Your task to perform on an android device: What's on my calendar tomorrow? Image 0: 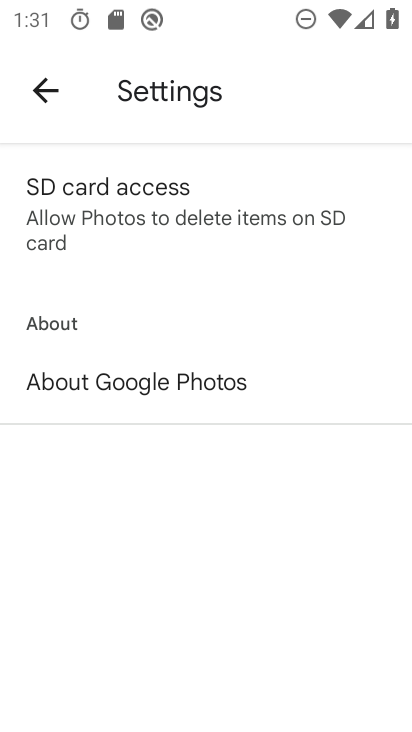
Step 0: press home button
Your task to perform on an android device: What's on my calendar tomorrow? Image 1: 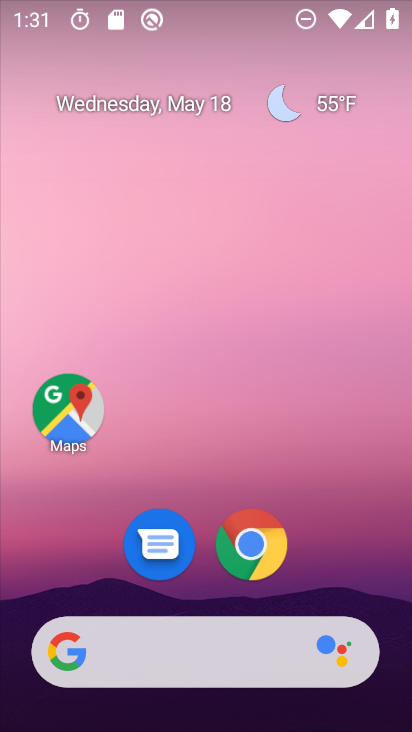
Step 1: click (194, 107)
Your task to perform on an android device: What's on my calendar tomorrow? Image 2: 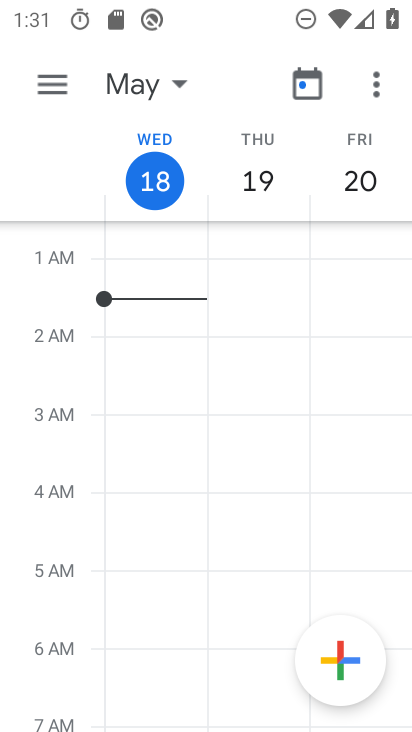
Step 2: click (63, 86)
Your task to perform on an android device: What's on my calendar tomorrow? Image 3: 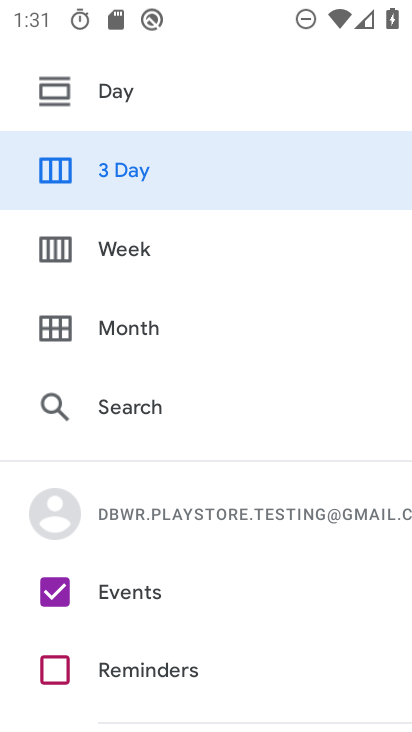
Step 3: drag from (208, 586) to (234, 256)
Your task to perform on an android device: What's on my calendar tomorrow? Image 4: 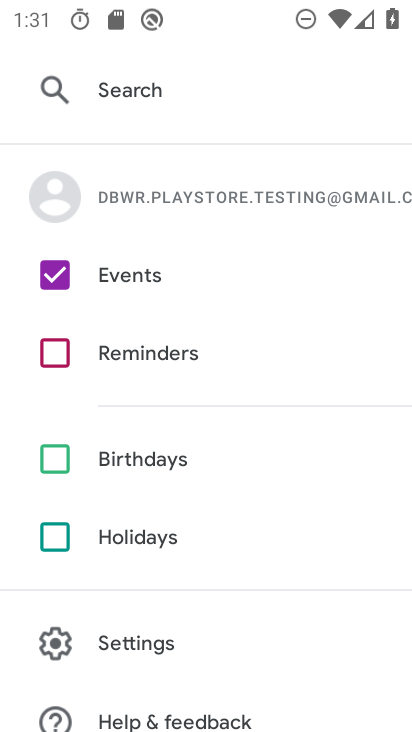
Step 4: click (59, 352)
Your task to perform on an android device: What's on my calendar tomorrow? Image 5: 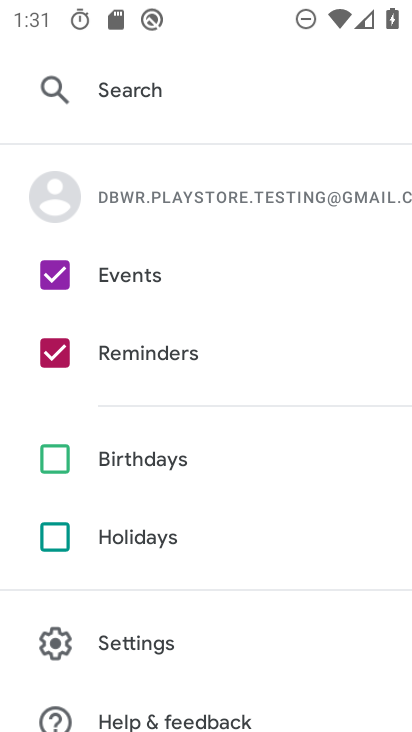
Step 5: click (58, 460)
Your task to perform on an android device: What's on my calendar tomorrow? Image 6: 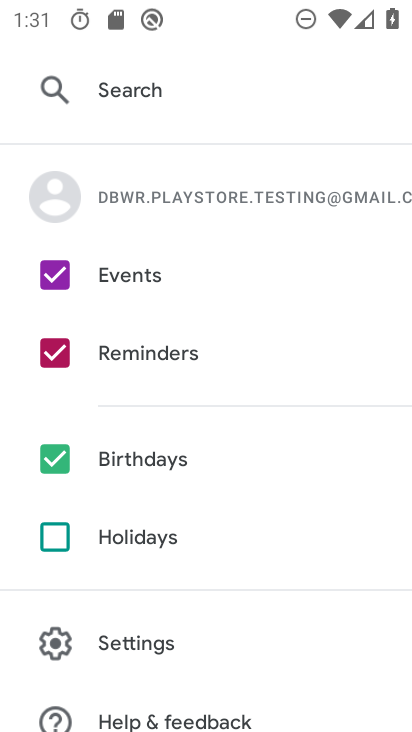
Step 6: click (56, 529)
Your task to perform on an android device: What's on my calendar tomorrow? Image 7: 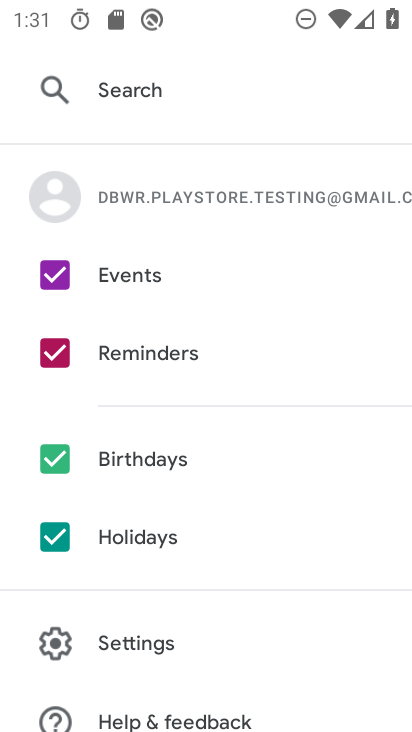
Step 7: drag from (291, 233) to (287, 701)
Your task to perform on an android device: What's on my calendar tomorrow? Image 8: 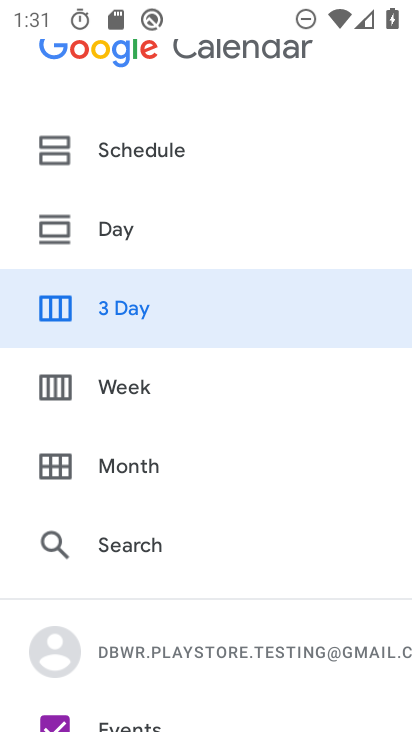
Step 8: click (220, 159)
Your task to perform on an android device: What's on my calendar tomorrow? Image 9: 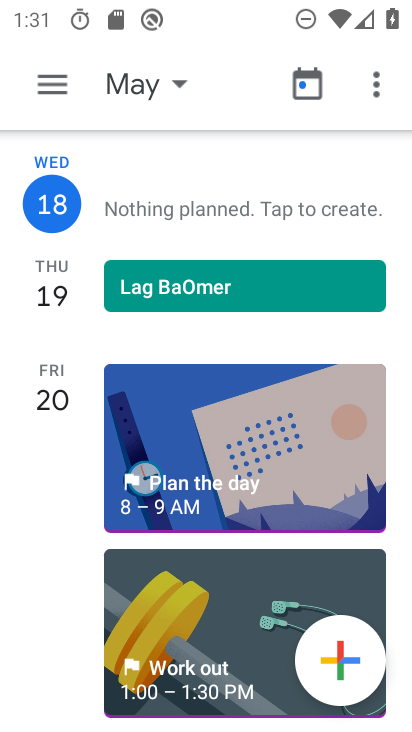
Step 9: drag from (194, 507) to (212, 383)
Your task to perform on an android device: What's on my calendar tomorrow? Image 10: 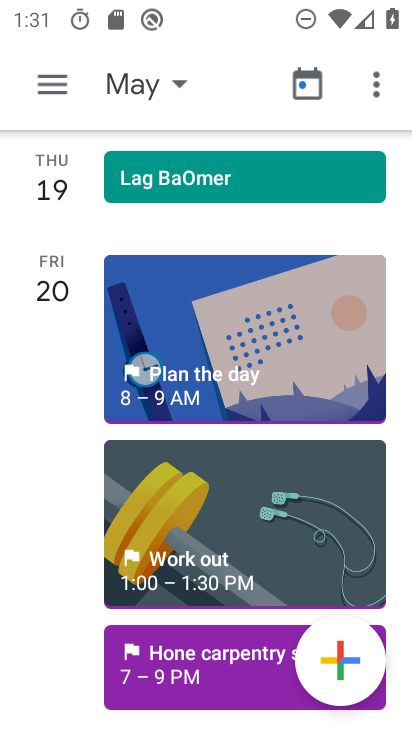
Step 10: click (215, 178)
Your task to perform on an android device: What's on my calendar tomorrow? Image 11: 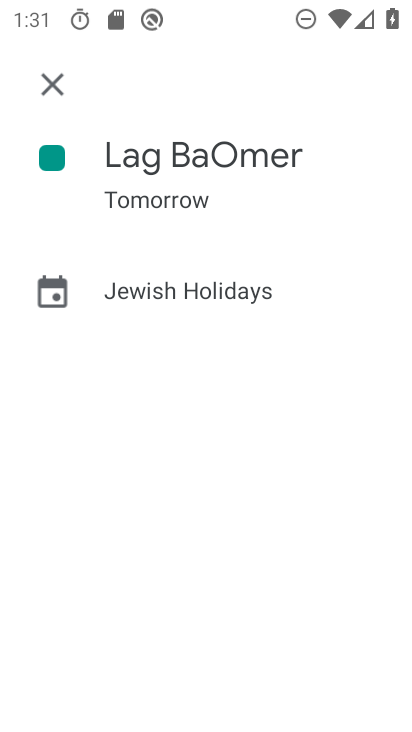
Step 11: task complete